Your task to perform on an android device: Go to Google Image 0: 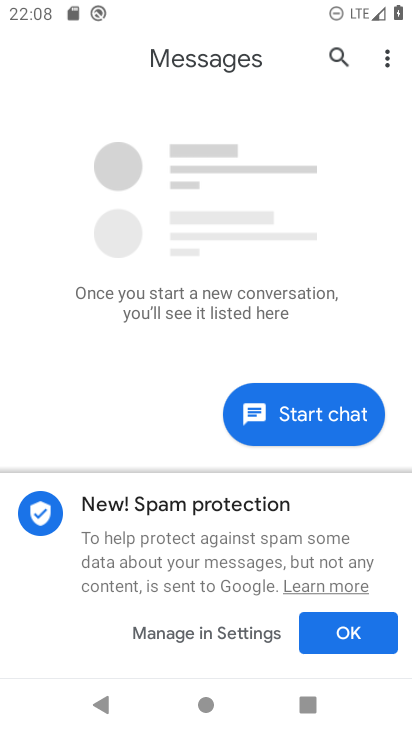
Step 0: press home button
Your task to perform on an android device: Go to Google Image 1: 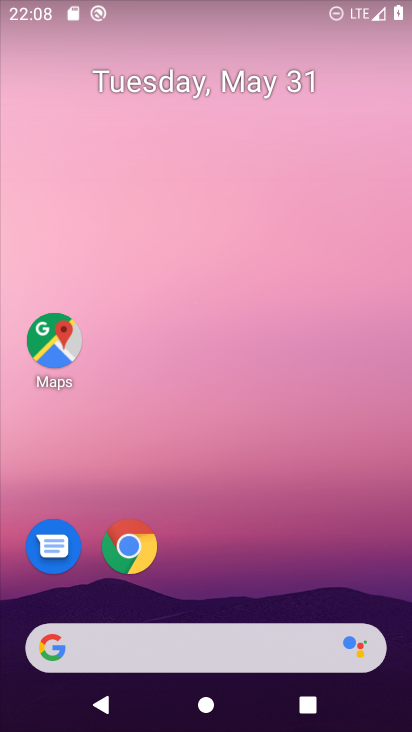
Step 1: drag from (394, 689) to (334, 167)
Your task to perform on an android device: Go to Google Image 2: 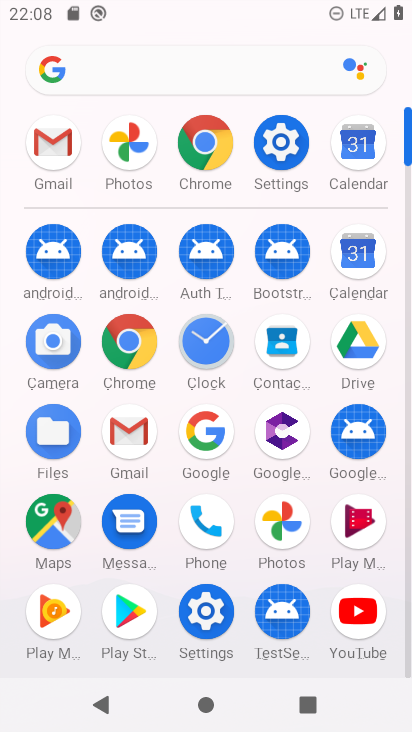
Step 2: click (200, 444)
Your task to perform on an android device: Go to Google Image 3: 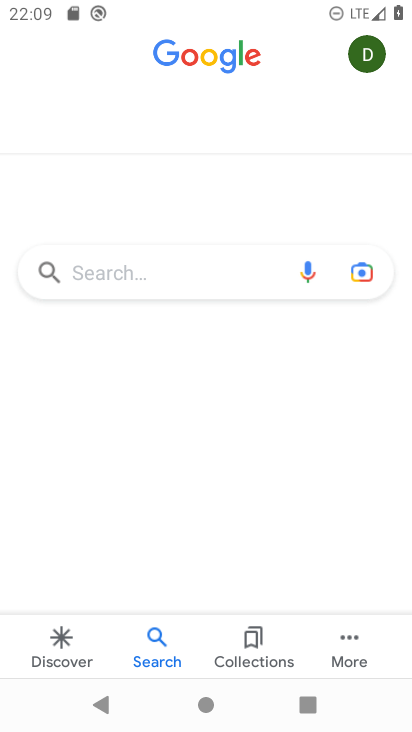
Step 3: task complete